Your task to perform on an android device: What's the weather going to be tomorrow? Image 0: 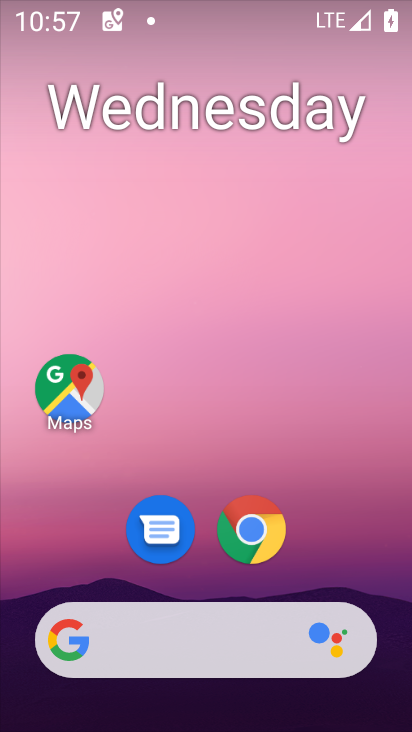
Step 0: drag from (11, 171) to (328, 197)
Your task to perform on an android device: What's the weather going to be tomorrow? Image 1: 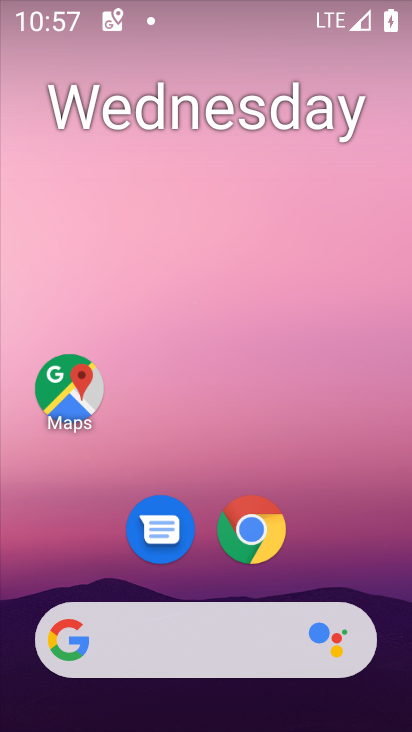
Step 1: click (10, 191)
Your task to perform on an android device: What's the weather going to be tomorrow? Image 2: 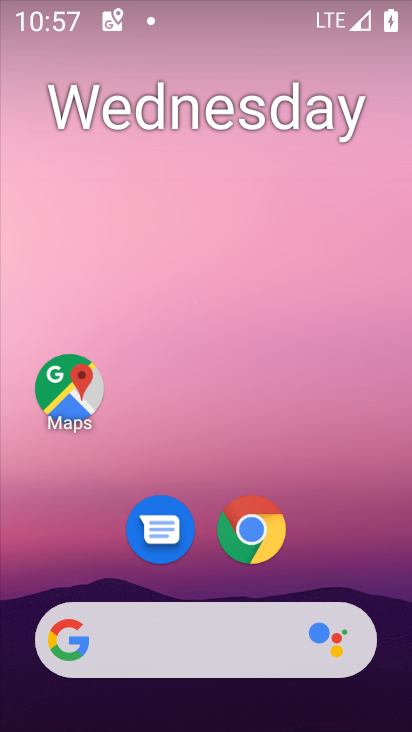
Step 2: click (170, 639)
Your task to perform on an android device: What's the weather going to be tomorrow? Image 3: 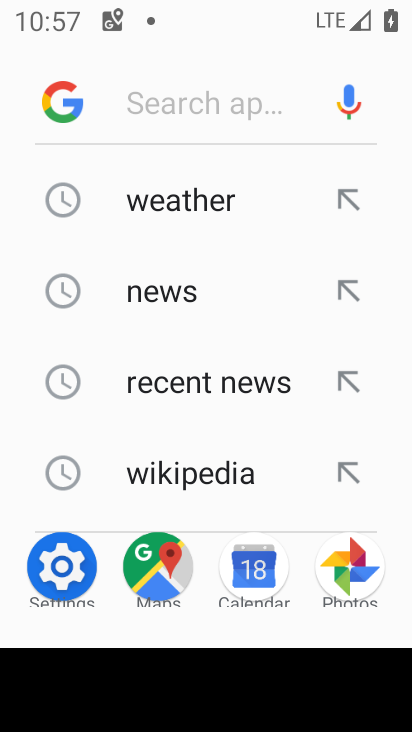
Step 3: click (172, 202)
Your task to perform on an android device: What's the weather going to be tomorrow? Image 4: 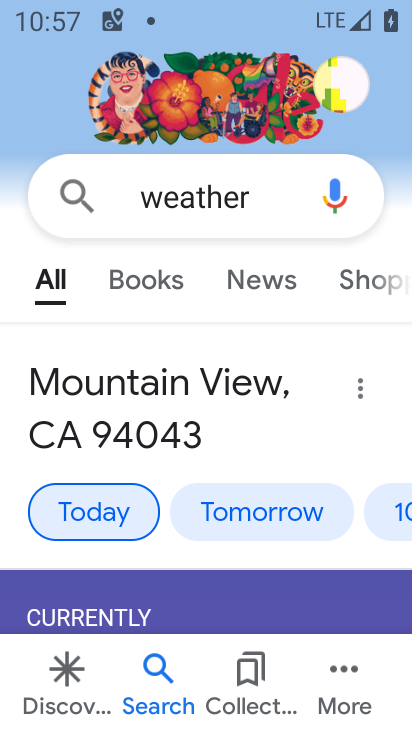
Step 4: click (397, 509)
Your task to perform on an android device: What's the weather going to be tomorrow? Image 5: 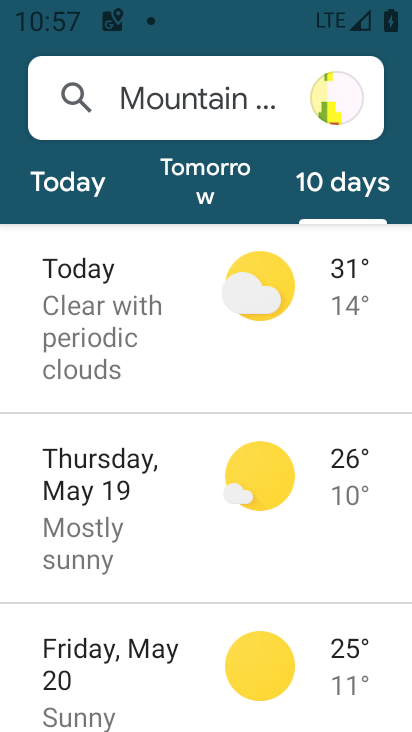
Step 5: click (187, 160)
Your task to perform on an android device: What's the weather going to be tomorrow? Image 6: 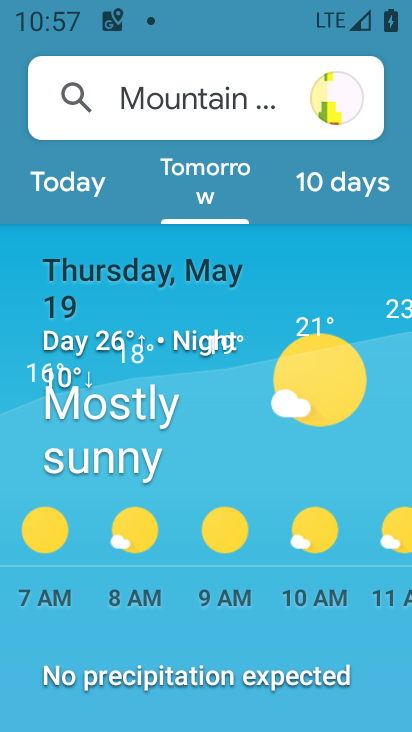
Step 6: task complete